Your task to perform on an android device: move a message to another label in the gmail app Image 0: 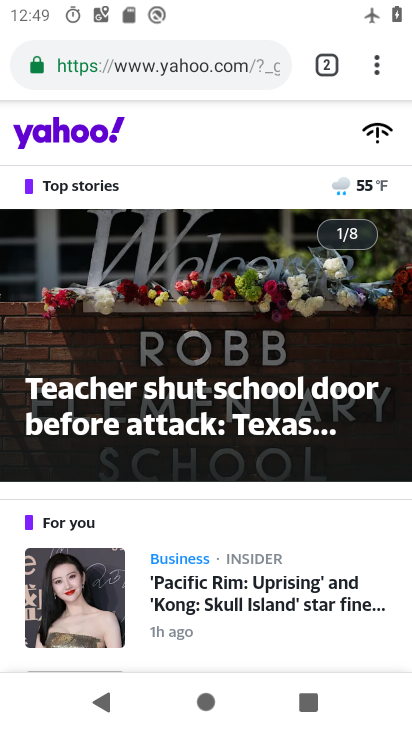
Step 0: press home button
Your task to perform on an android device: move a message to another label in the gmail app Image 1: 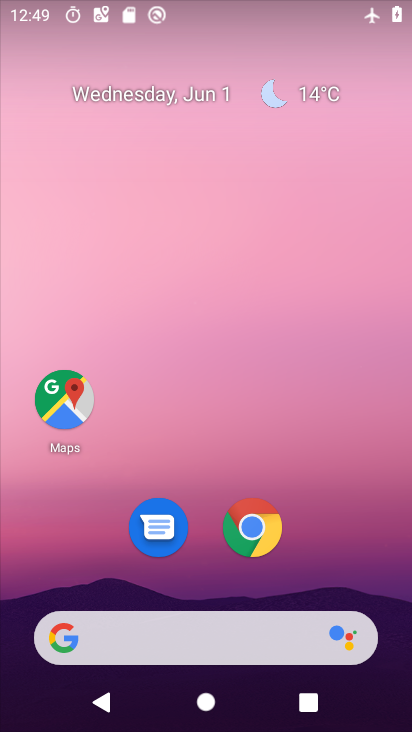
Step 1: drag from (341, 591) to (302, 17)
Your task to perform on an android device: move a message to another label in the gmail app Image 2: 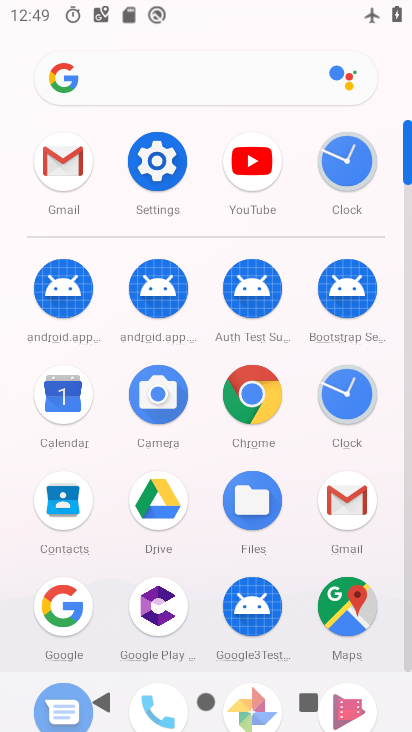
Step 2: click (337, 484)
Your task to perform on an android device: move a message to another label in the gmail app Image 3: 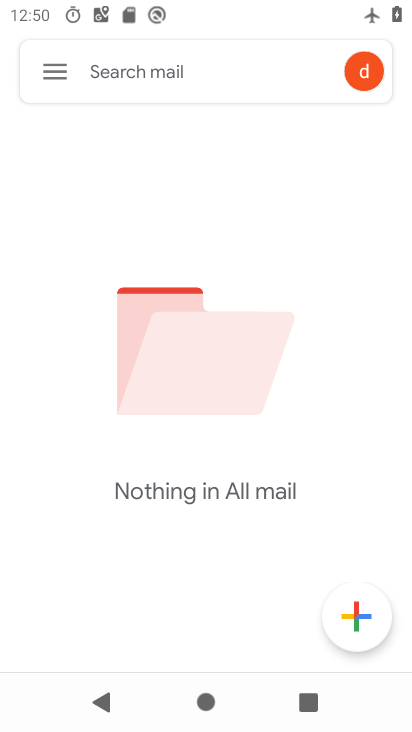
Step 3: task complete